Your task to perform on an android device: see creations saved in the google photos Image 0: 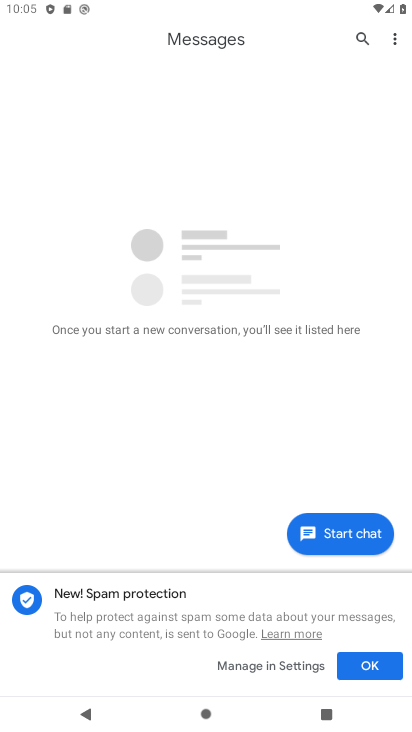
Step 0: press home button
Your task to perform on an android device: see creations saved in the google photos Image 1: 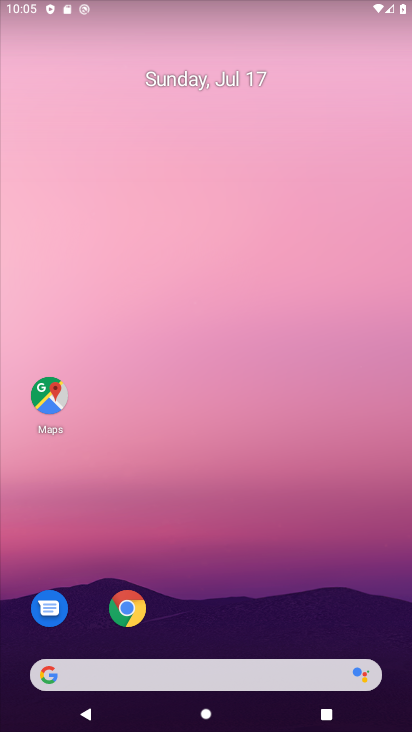
Step 1: drag from (218, 616) to (258, 125)
Your task to perform on an android device: see creations saved in the google photos Image 2: 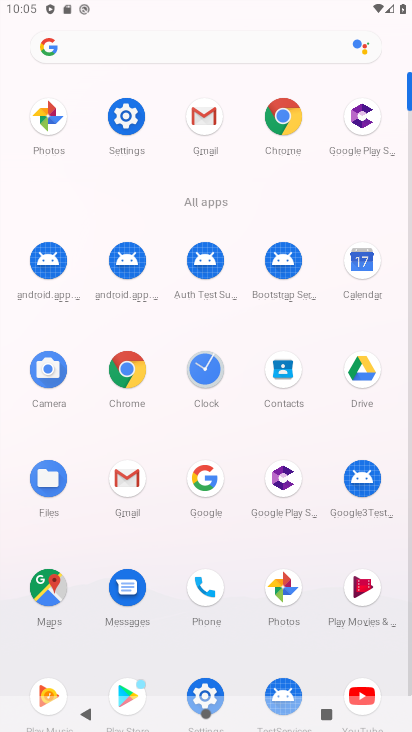
Step 2: click (286, 585)
Your task to perform on an android device: see creations saved in the google photos Image 3: 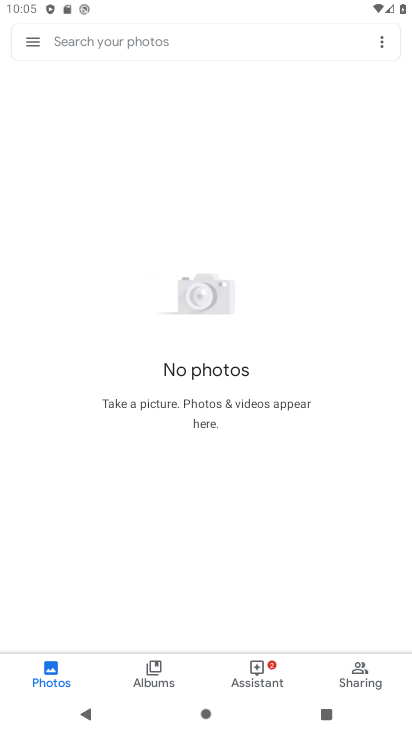
Step 3: click (159, 52)
Your task to perform on an android device: see creations saved in the google photos Image 4: 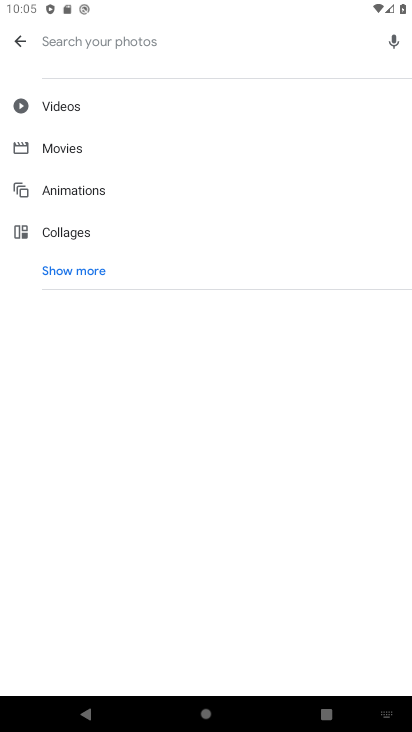
Step 4: click (82, 270)
Your task to perform on an android device: see creations saved in the google photos Image 5: 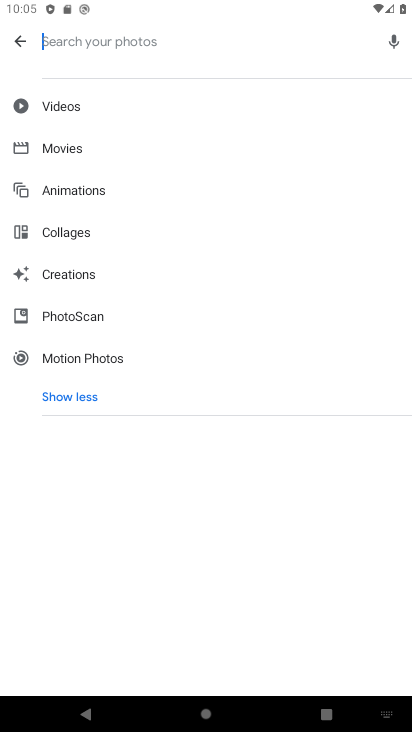
Step 5: click (87, 275)
Your task to perform on an android device: see creations saved in the google photos Image 6: 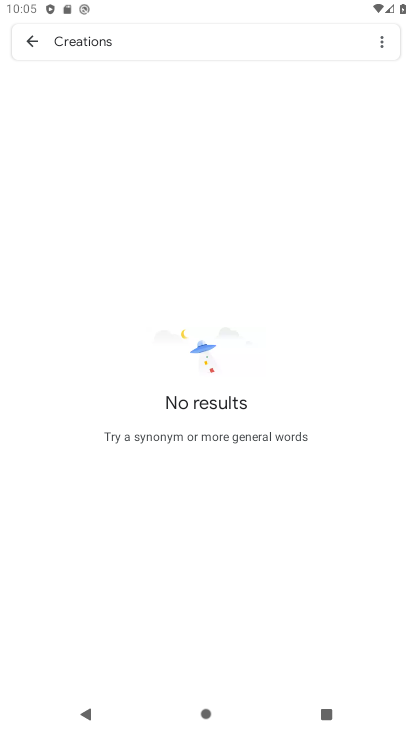
Step 6: task complete